Your task to perform on an android device: Go to settings Image 0: 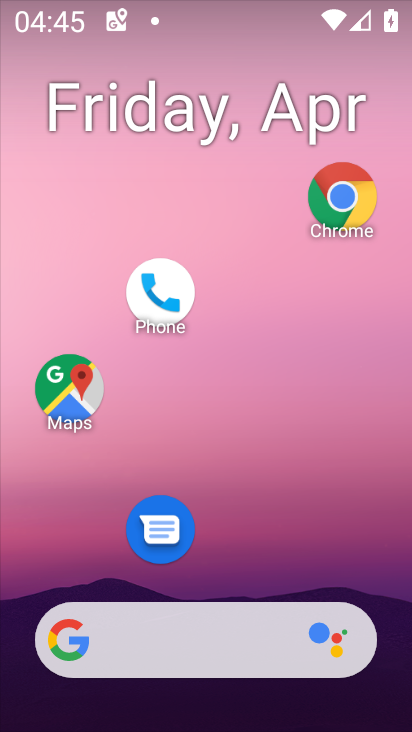
Step 0: drag from (235, 573) to (265, 65)
Your task to perform on an android device: Go to settings Image 1: 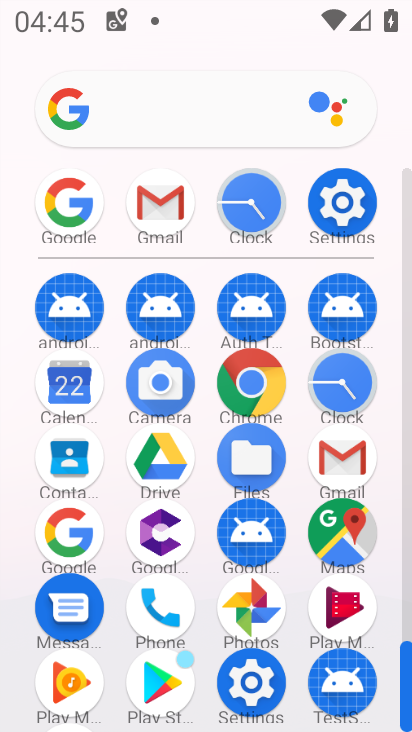
Step 1: click (339, 196)
Your task to perform on an android device: Go to settings Image 2: 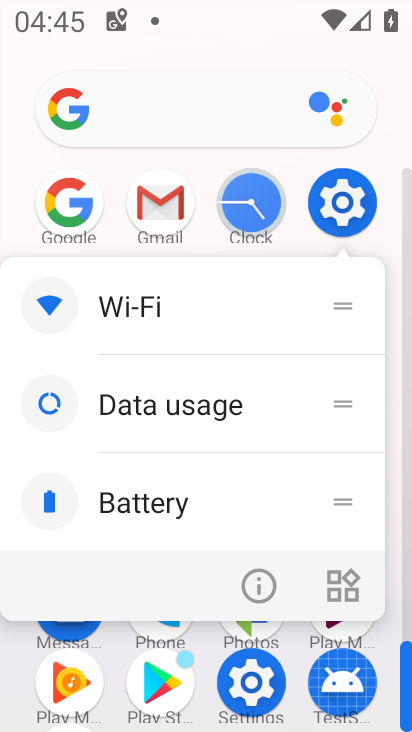
Step 2: click (340, 199)
Your task to perform on an android device: Go to settings Image 3: 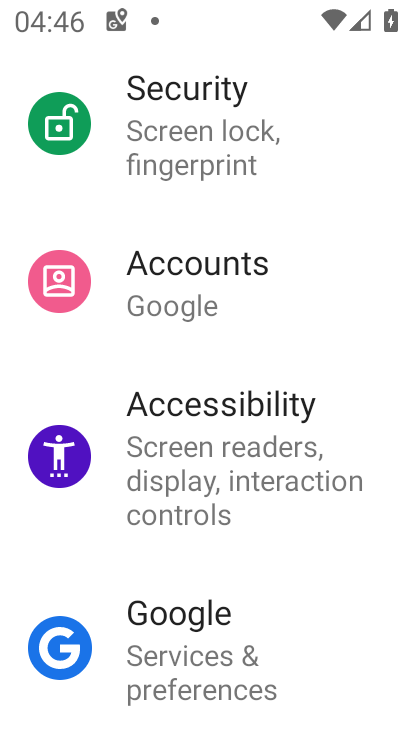
Step 3: task complete